Your task to perform on an android device: check out phone information Image 0: 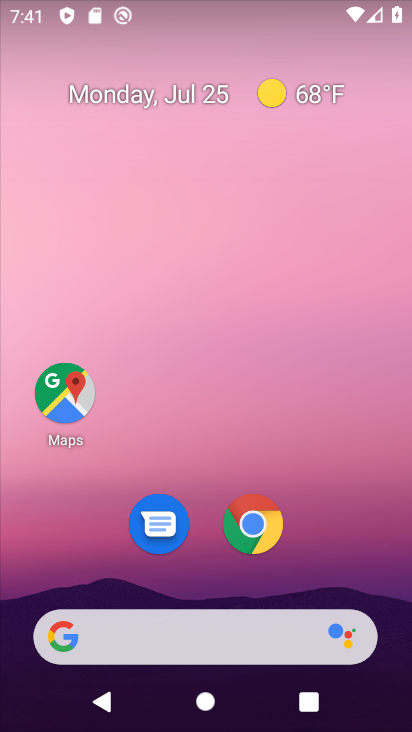
Step 0: drag from (349, 554) to (359, 65)
Your task to perform on an android device: check out phone information Image 1: 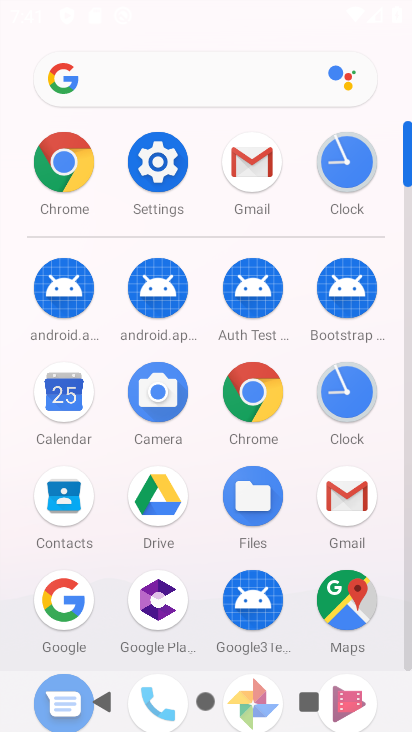
Step 1: drag from (230, 519) to (227, 223)
Your task to perform on an android device: check out phone information Image 2: 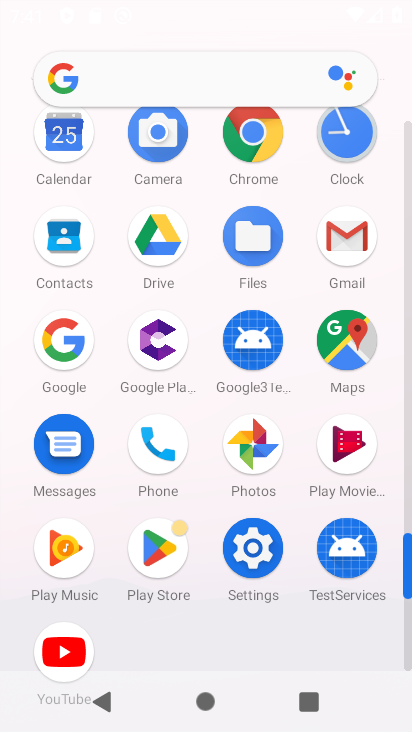
Step 2: click (164, 439)
Your task to perform on an android device: check out phone information Image 3: 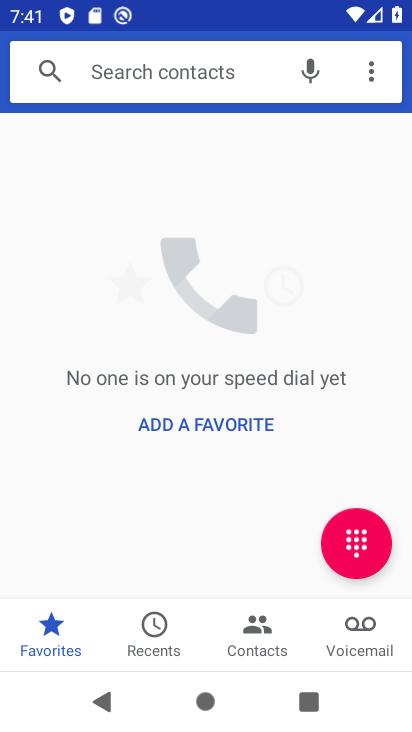
Step 3: click (367, 73)
Your task to perform on an android device: check out phone information Image 4: 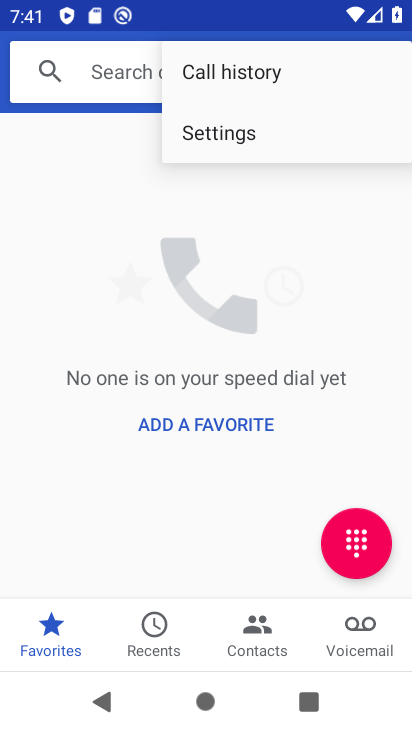
Step 4: click (262, 128)
Your task to perform on an android device: check out phone information Image 5: 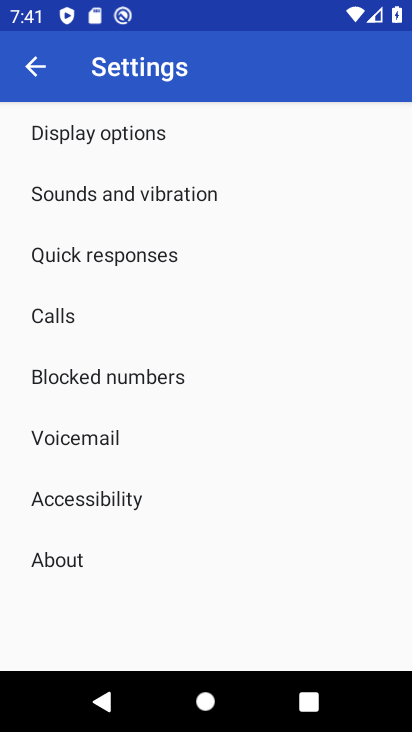
Step 5: click (52, 552)
Your task to perform on an android device: check out phone information Image 6: 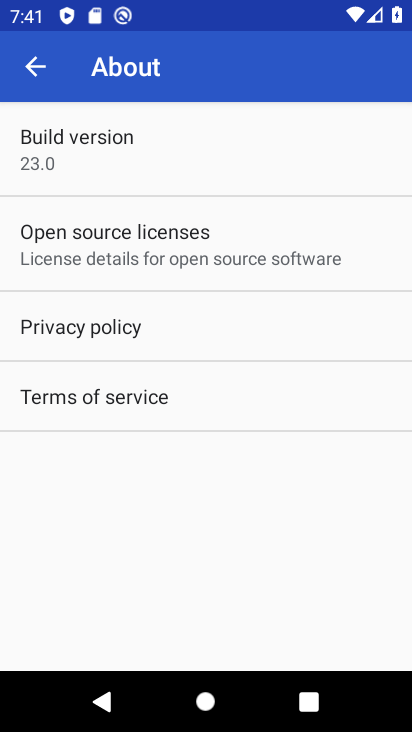
Step 6: task complete